Your task to perform on an android device: Show the shopping cart on amazon. Add jbl flip 4 to the cart on amazon Image 0: 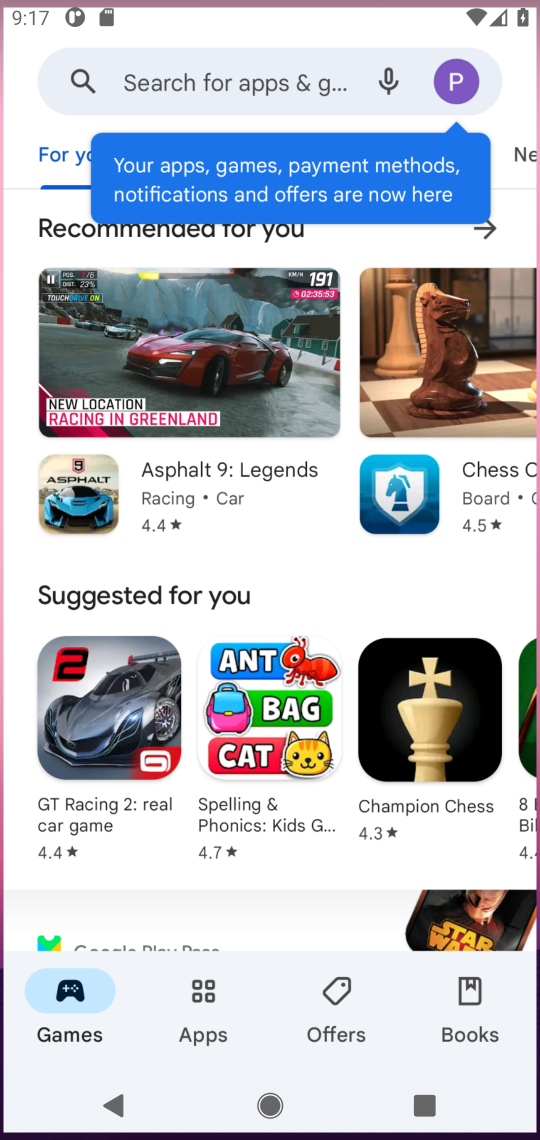
Step 0: click (173, 1034)
Your task to perform on an android device: Show the shopping cart on amazon. Add jbl flip 4 to the cart on amazon Image 1: 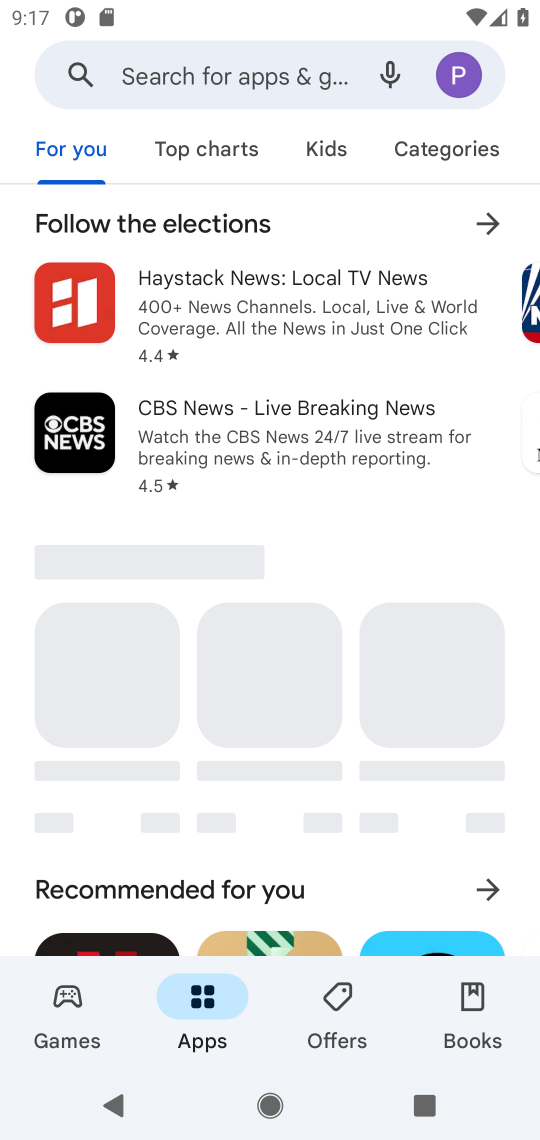
Step 1: press home button
Your task to perform on an android device: Show the shopping cart on amazon. Add jbl flip 4 to the cart on amazon Image 2: 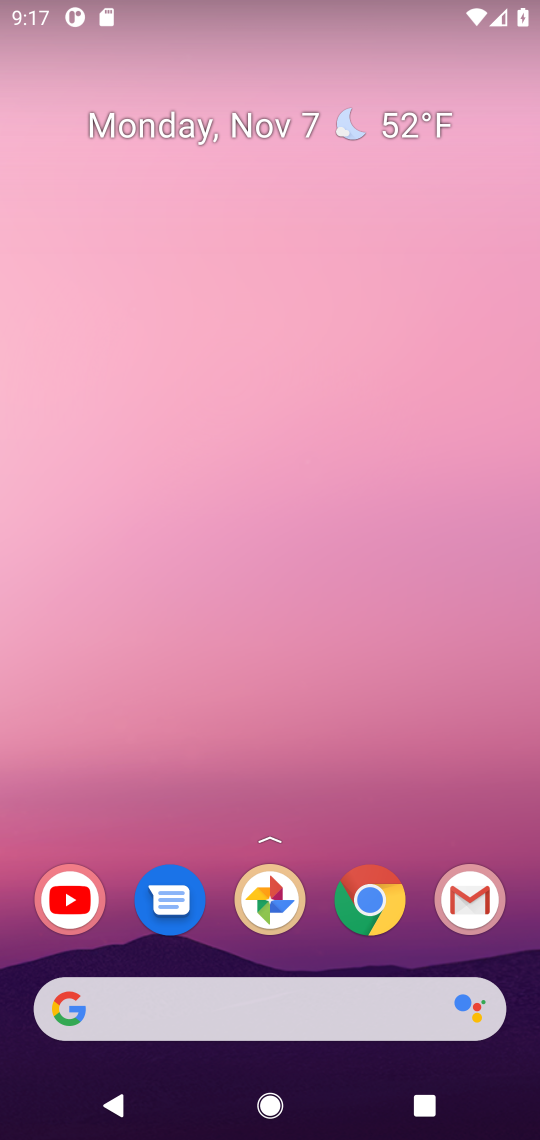
Step 2: click (264, 1016)
Your task to perform on an android device: Show the shopping cart on amazon. Add jbl flip 4 to the cart on amazon Image 3: 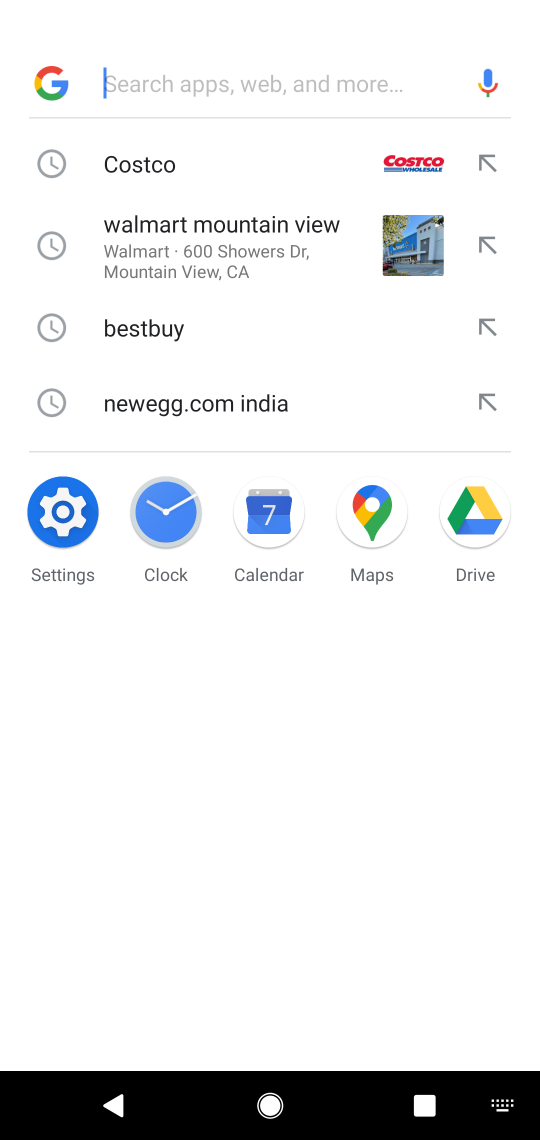
Step 3: type "amazone"
Your task to perform on an android device: Show the shopping cart on amazon. Add jbl flip 4 to the cart on amazon Image 4: 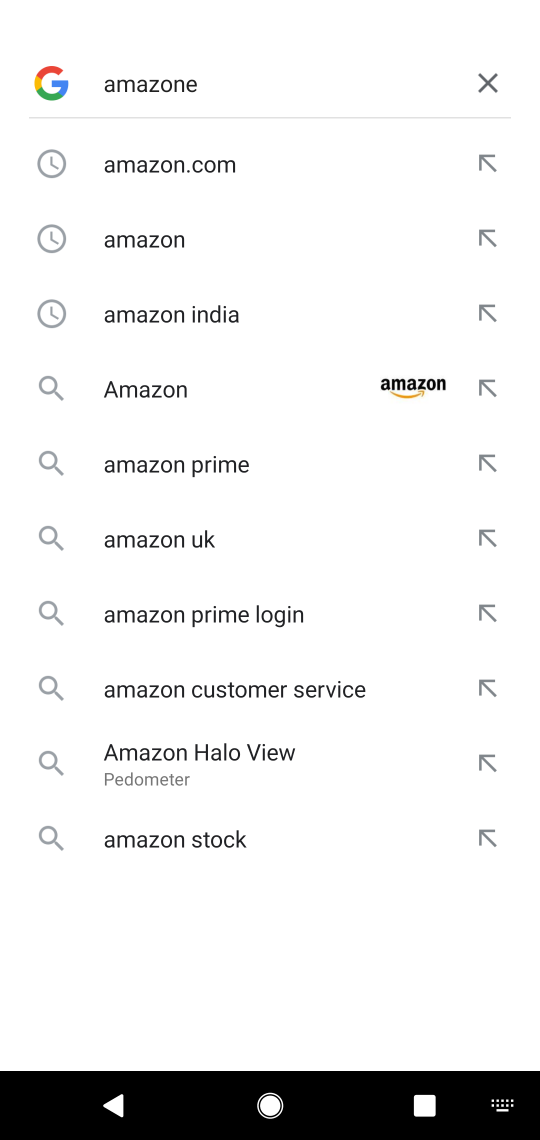
Step 4: click (201, 161)
Your task to perform on an android device: Show the shopping cart on amazon. Add jbl flip 4 to the cart on amazon Image 5: 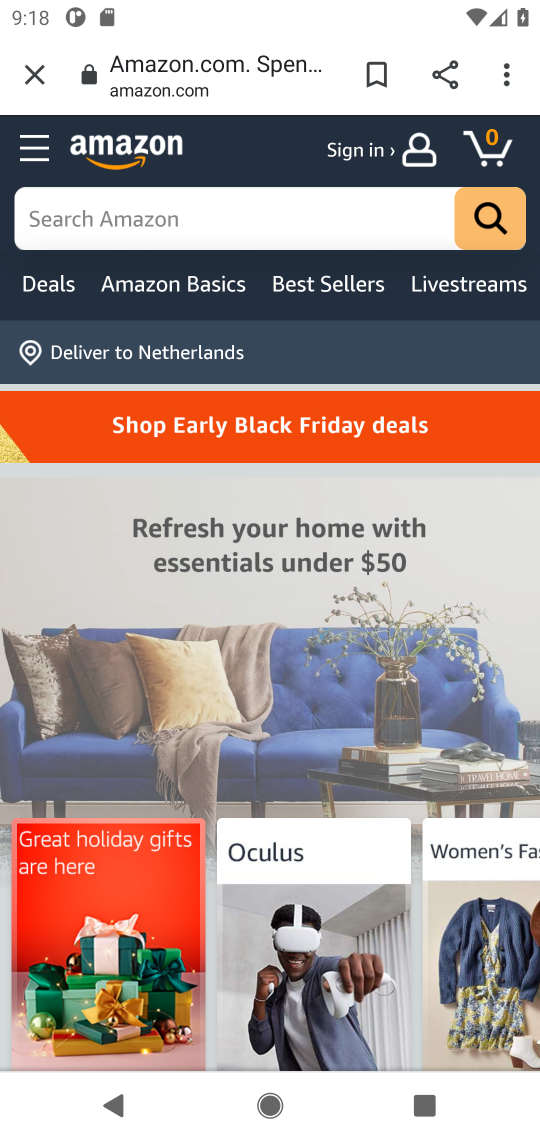
Step 5: click (162, 226)
Your task to perform on an android device: Show the shopping cart on amazon. Add jbl flip 4 to the cart on amazon Image 6: 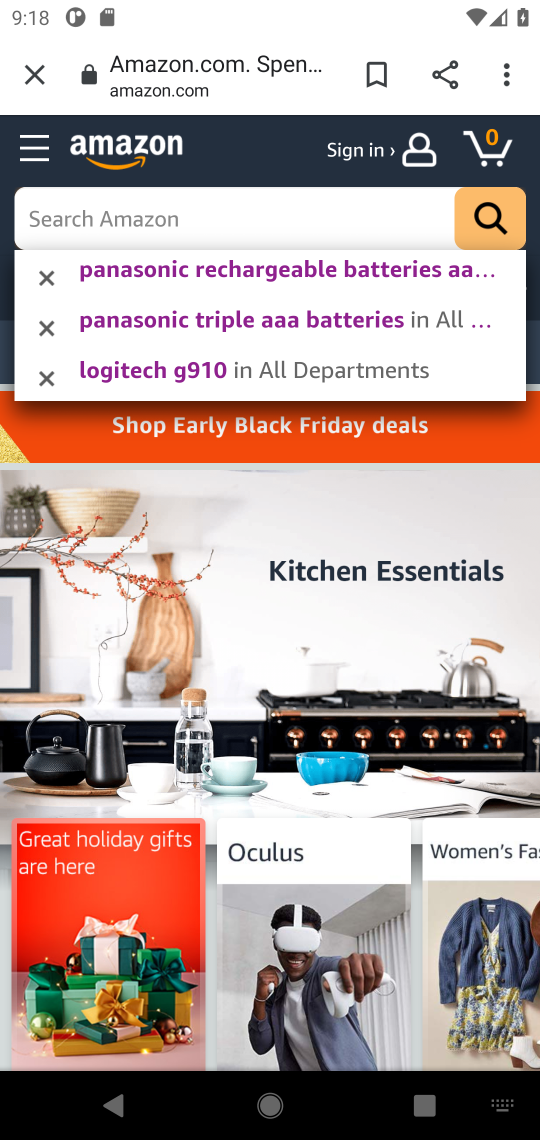
Step 6: type "jbl flip 4"
Your task to perform on an android device: Show the shopping cart on amazon. Add jbl flip 4 to the cart on amazon Image 7: 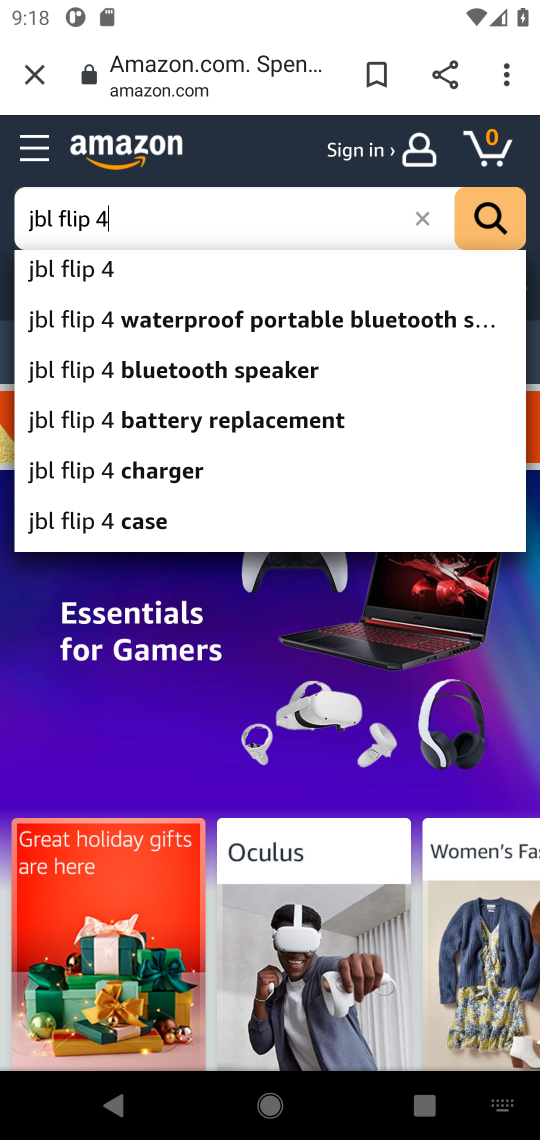
Step 7: click (392, 268)
Your task to perform on an android device: Show the shopping cart on amazon. Add jbl flip 4 to the cart on amazon Image 8: 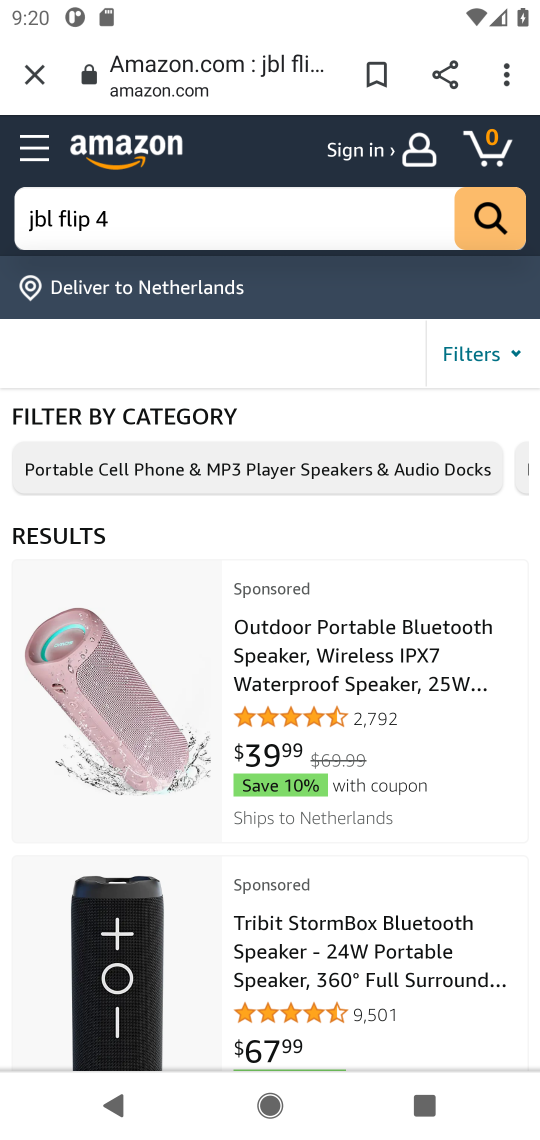
Step 8: task complete